Your task to perform on an android device: Open calendar and show me the first week of next month Image 0: 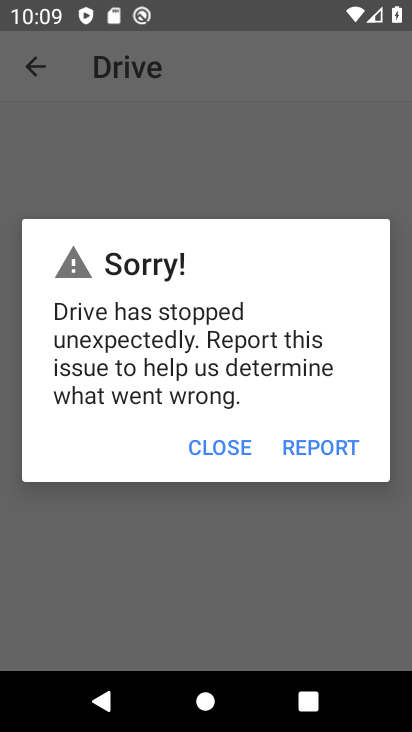
Step 0: press home button
Your task to perform on an android device: Open calendar and show me the first week of next month Image 1: 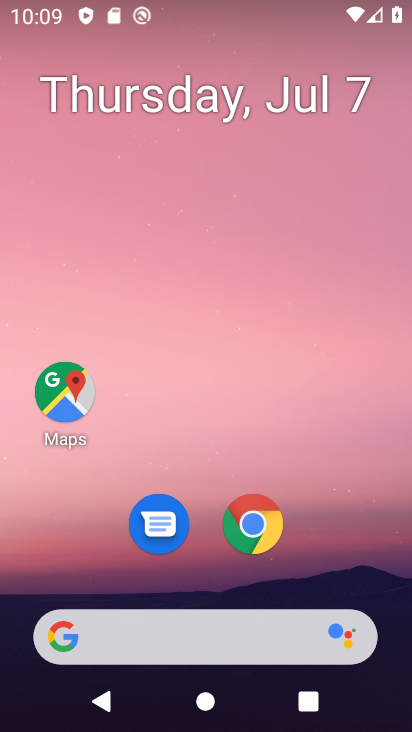
Step 1: drag from (319, 503) to (355, 200)
Your task to perform on an android device: Open calendar and show me the first week of next month Image 2: 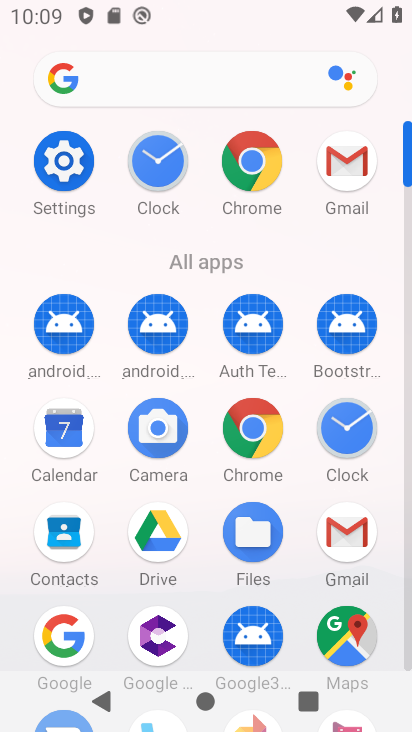
Step 2: click (72, 429)
Your task to perform on an android device: Open calendar and show me the first week of next month Image 3: 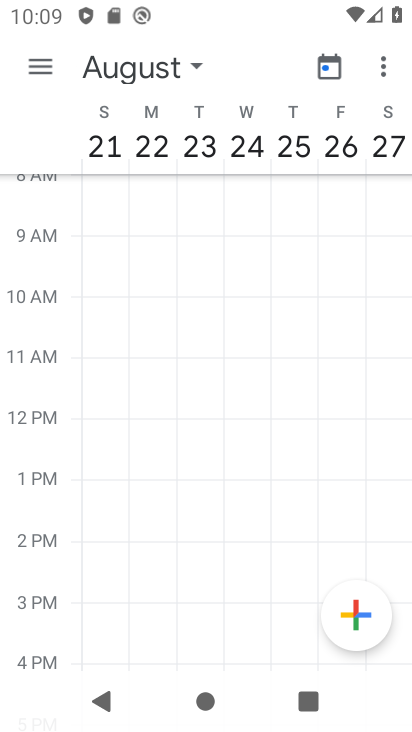
Step 3: task complete